Your task to perform on an android device: check storage Image 0: 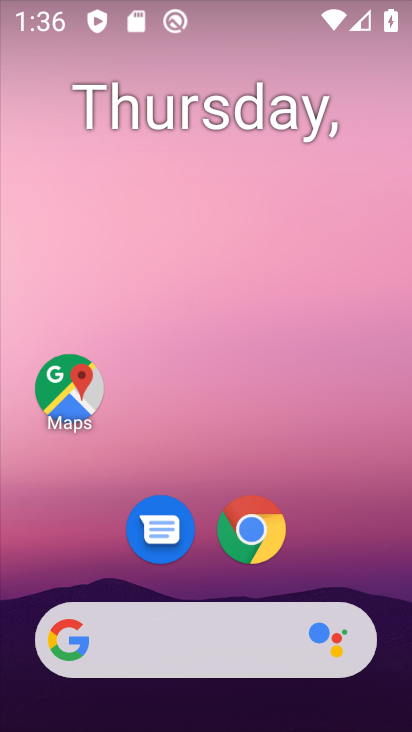
Step 0: drag from (99, 566) to (302, 41)
Your task to perform on an android device: check storage Image 1: 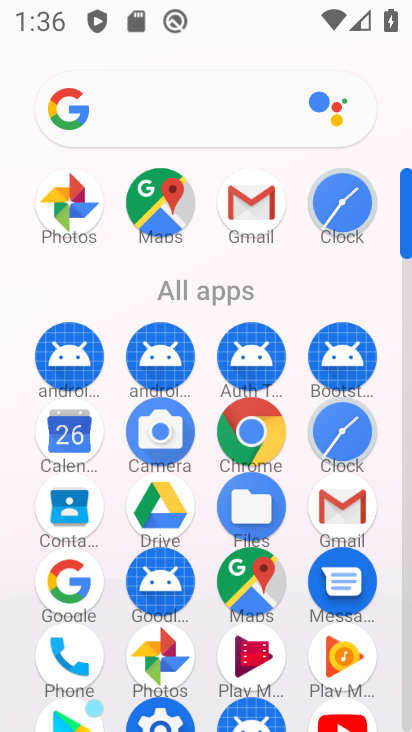
Step 1: drag from (142, 681) to (229, 356)
Your task to perform on an android device: check storage Image 2: 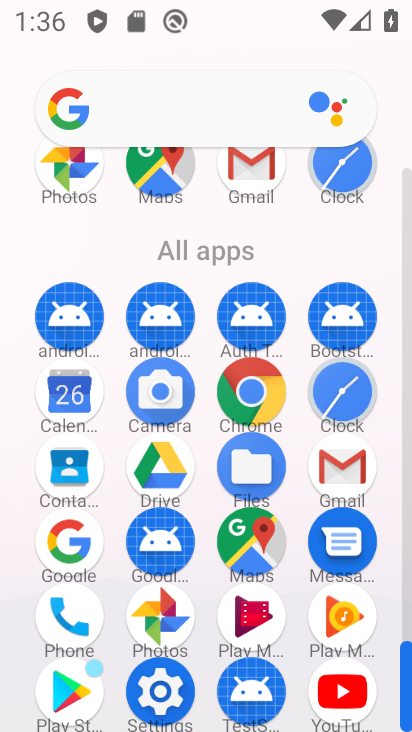
Step 2: click (163, 693)
Your task to perform on an android device: check storage Image 3: 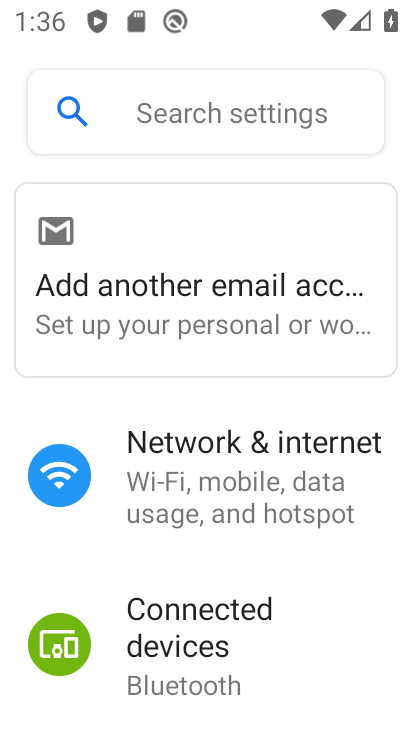
Step 3: drag from (197, 618) to (310, 100)
Your task to perform on an android device: check storage Image 4: 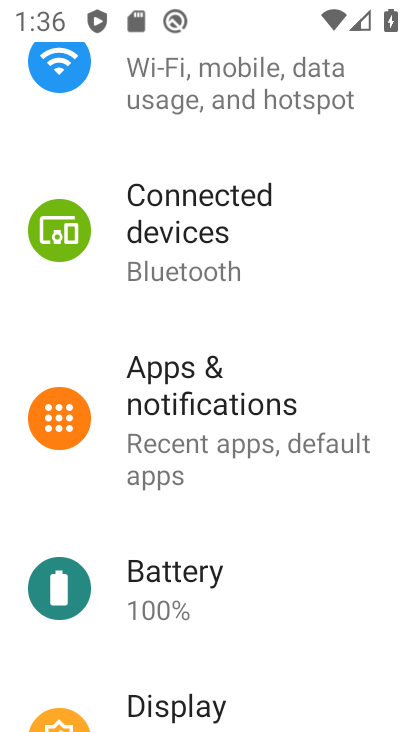
Step 4: drag from (105, 564) to (230, 190)
Your task to perform on an android device: check storage Image 5: 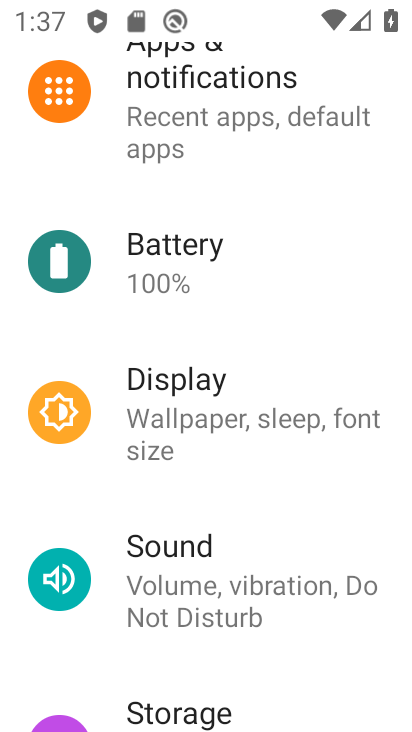
Step 5: drag from (159, 606) to (248, 330)
Your task to perform on an android device: check storage Image 6: 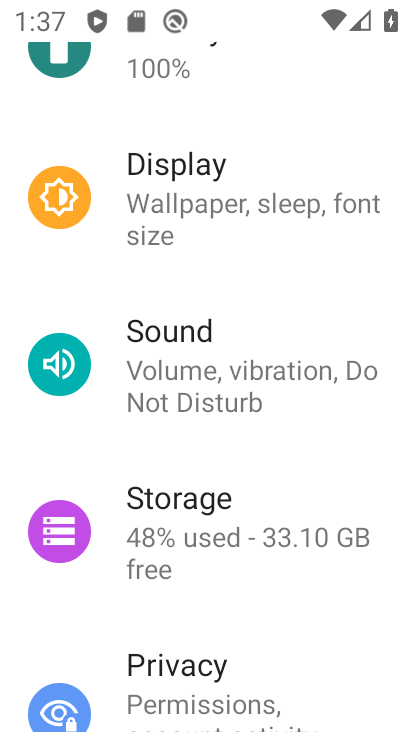
Step 6: click (194, 531)
Your task to perform on an android device: check storage Image 7: 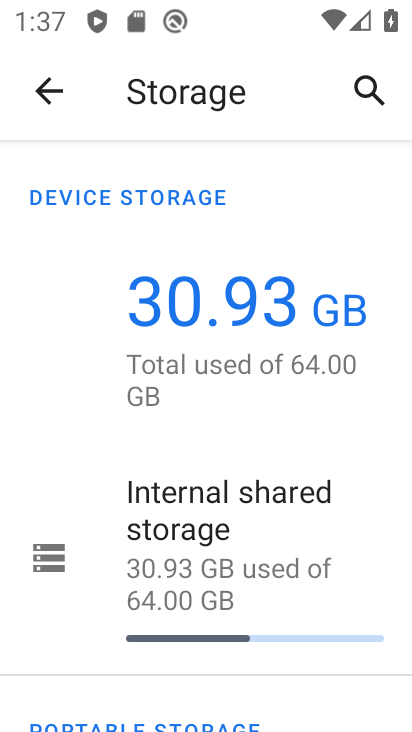
Step 7: click (232, 558)
Your task to perform on an android device: check storage Image 8: 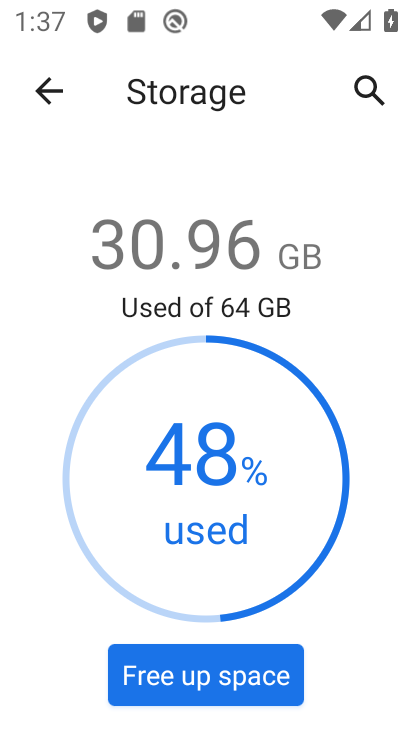
Step 8: task complete